Your task to perform on an android device: add a contact in the contacts app Image 0: 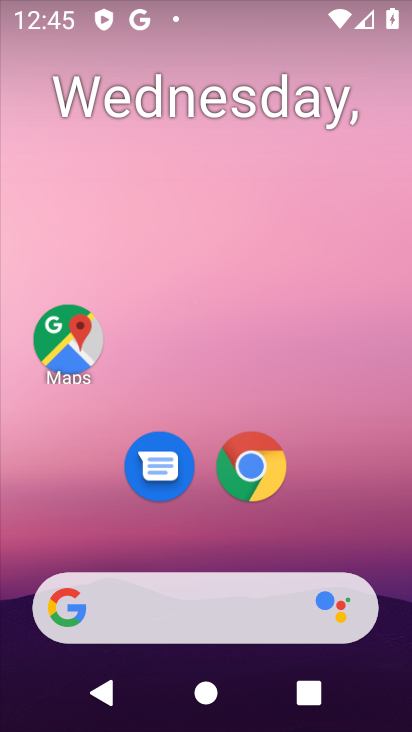
Step 0: drag from (282, 399) to (309, 175)
Your task to perform on an android device: add a contact in the contacts app Image 1: 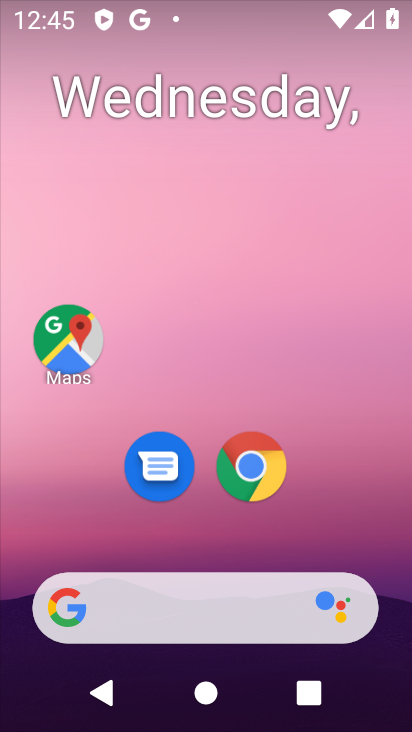
Step 1: drag from (283, 507) to (281, 161)
Your task to perform on an android device: add a contact in the contacts app Image 2: 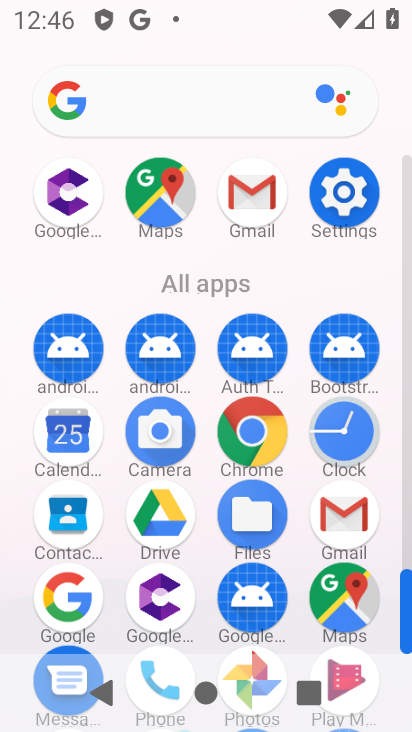
Step 2: click (72, 536)
Your task to perform on an android device: add a contact in the contacts app Image 3: 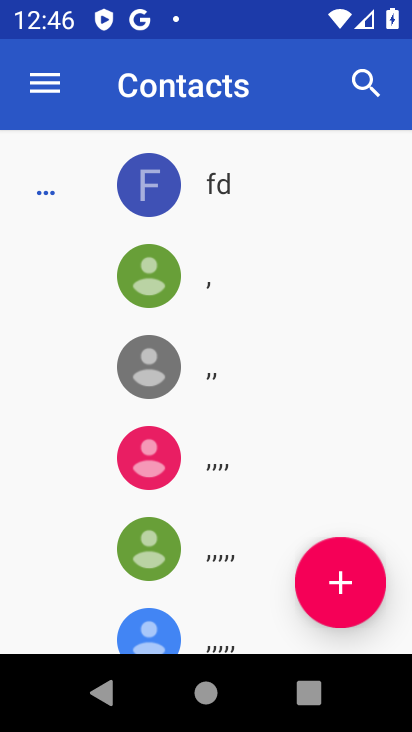
Step 3: click (324, 570)
Your task to perform on an android device: add a contact in the contacts app Image 4: 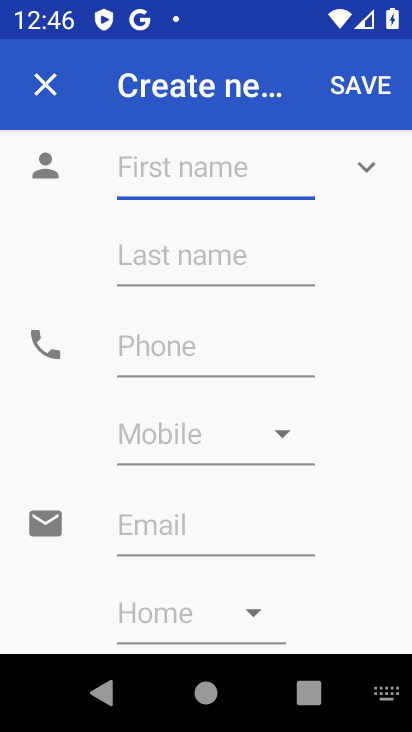
Step 4: type "dsgd"
Your task to perform on an android device: add a contact in the contacts app Image 5: 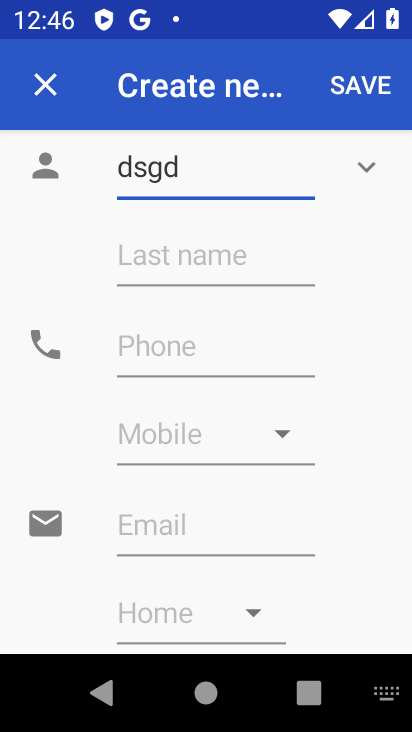
Step 5: click (178, 416)
Your task to perform on an android device: add a contact in the contacts app Image 6: 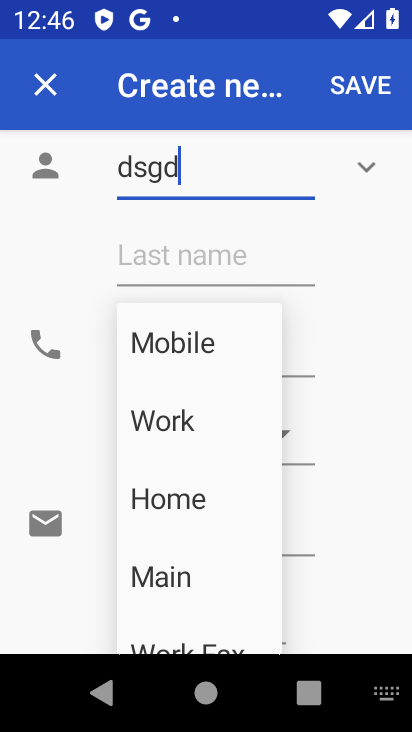
Step 6: click (364, 327)
Your task to perform on an android device: add a contact in the contacts app Image 7: 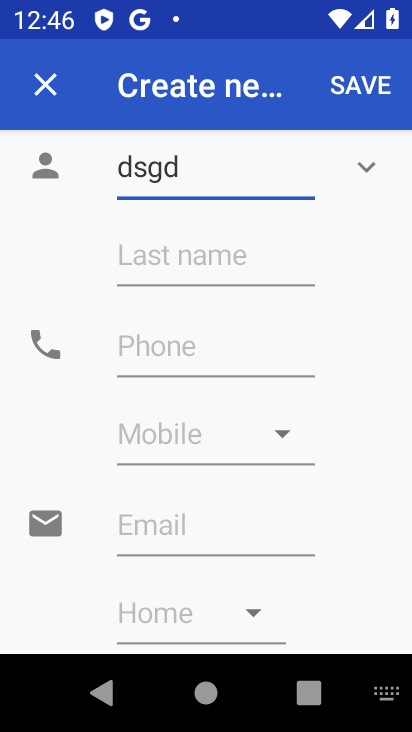
Step 7: click (155, 332)
Your task to perform on an android device: add a contact in the contacts app Image 8: 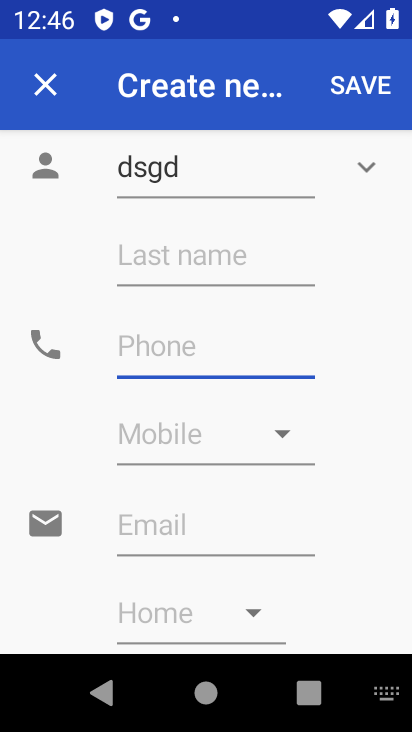
Step 8: type "978r69"
Your task to perform on an android device: add a contact in the contacts app Image 9: 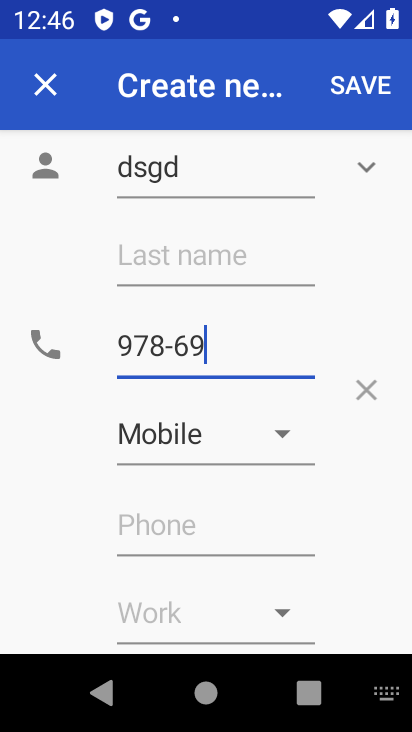
Step 9: click (359, 85)
Your task to perform on an android device: add a contact in the contacts app Image 10: 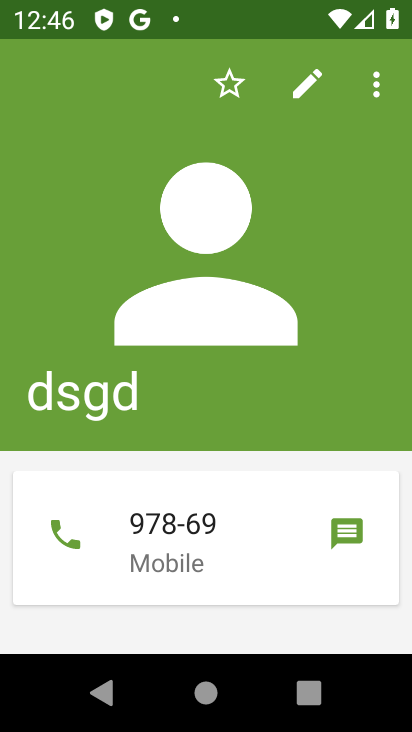
Step 10: task complete